Your task to perform on an android device: turn vacation reply on in the gmail app Image 0: 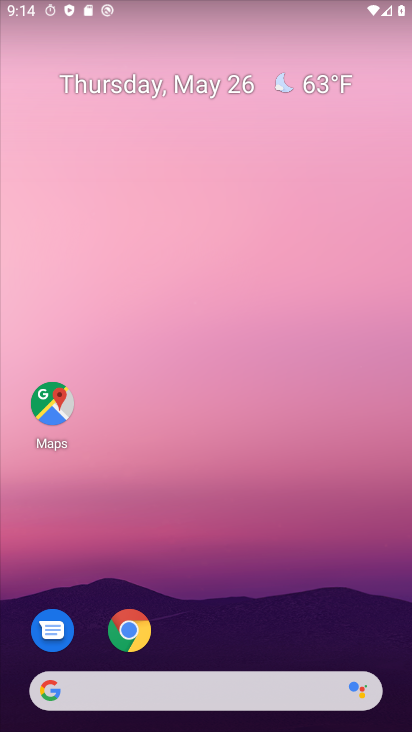
Step 0: drag from (257, 700) to (258, 61)
Your task to perform on an android device: turn vacation reply on in the gmail app Image 1: 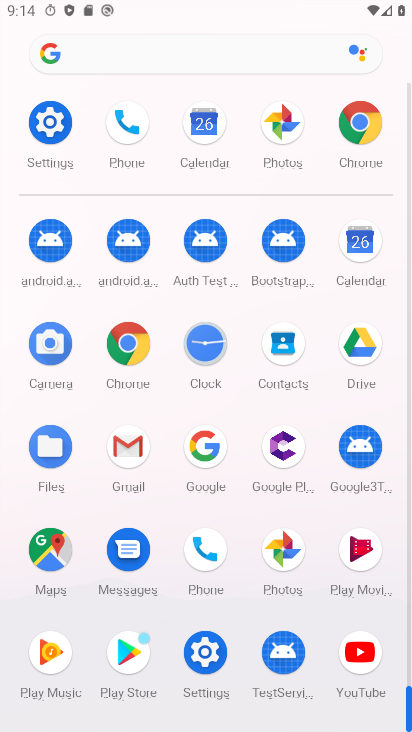
Step 1: click (128, 452)
Your task to perform on an android device: turn vacation reply on in the gmail app Image 2: 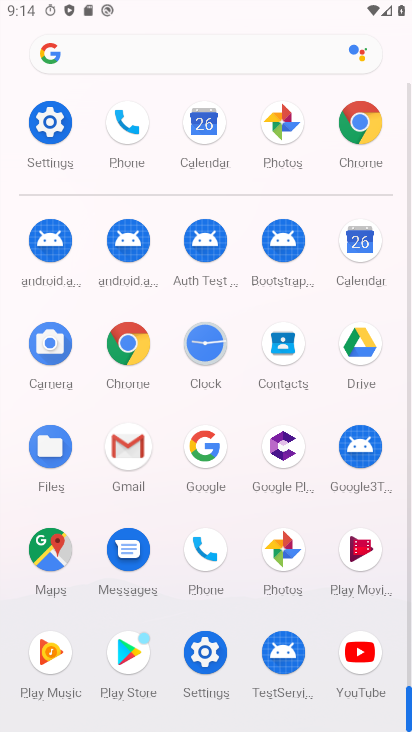
Step 2: click (153, 446)
Your task to perform on an android device: turn vacation reply on in the gmail app Image 3: 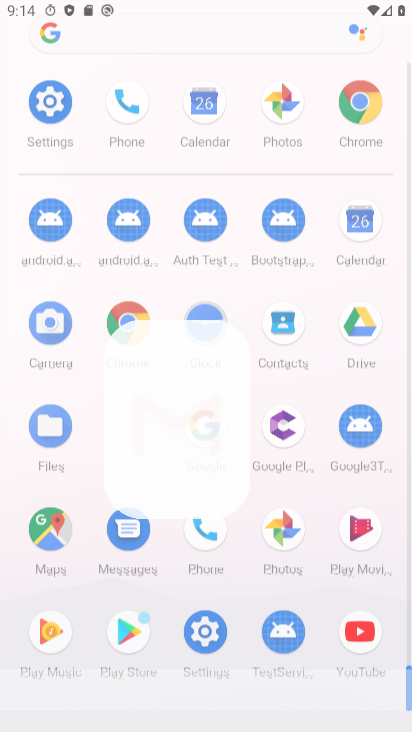
Step 3: click (153, 446)
Your task to perform on an android device: turn vacation reply on in the gmail app Image 4: 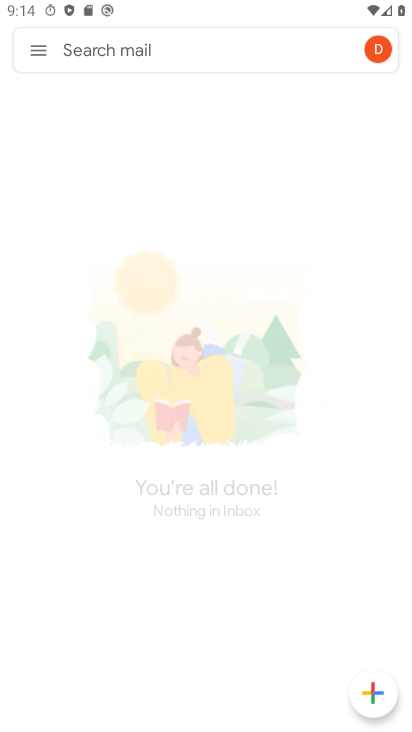
Step 4: drag from (138, 444) to (106, 421)
Your task to perform on an android device: turn vacation reply on in the gmail app Image 5: 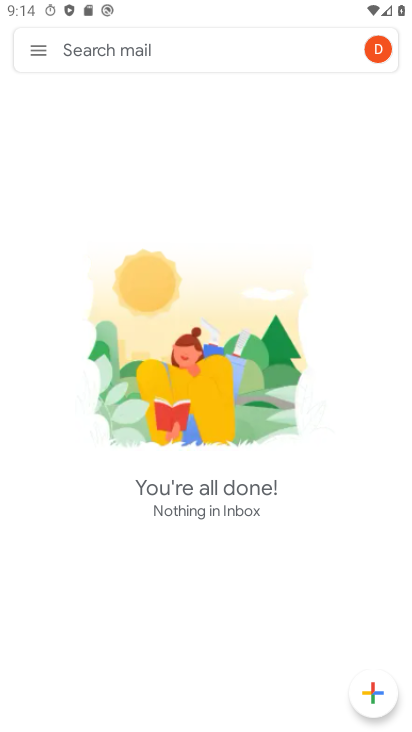
Step 5: click (44, 48)
Your task to perform on an android device: turn vacation reply on in the gmail app Image 6: 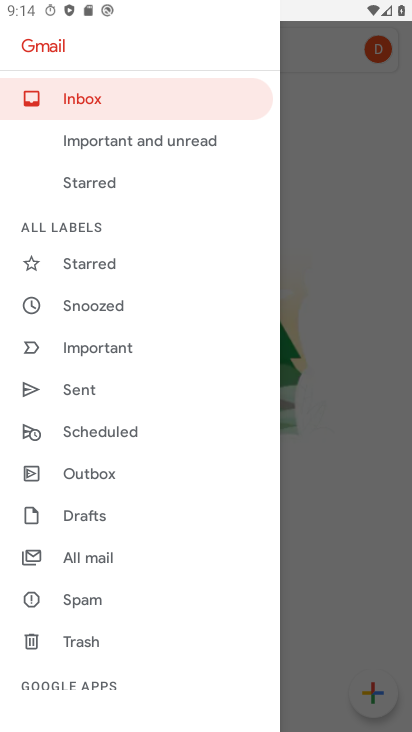
Step 6: drag from (113, 500) to (144, 119)
Your task to perform on an android device: turn vacation reply on in the gmail app Image 7: 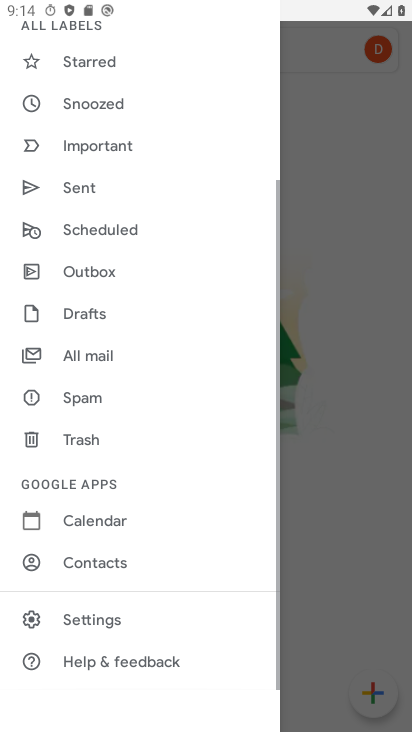
Step 7: drag from (74, 508) to (145, 167)
Your task to perform on an android device: turn vacation reply on in the gmail app Image 8: 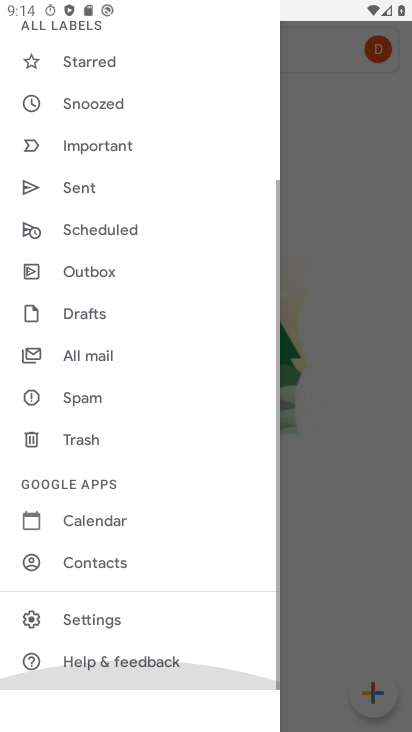
Step 8: drag from (137, 251) to (145, 146)
Your task to perform on an android device: turn vacation reply on in the gmail app Image 9: 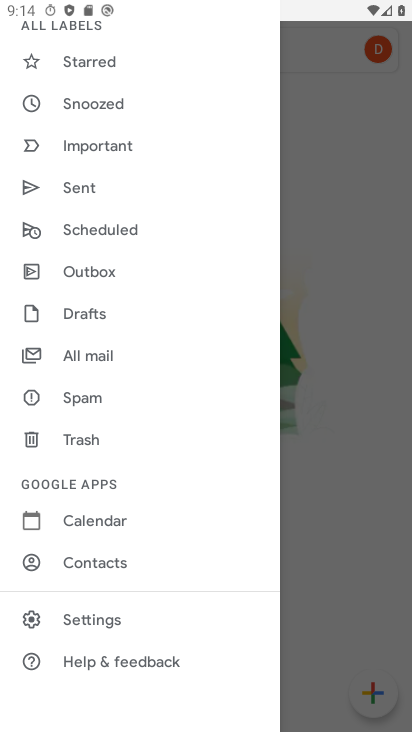
Step 9: click (76, 622)
Your task to perform on an android device: turn vacation reply on in the gmail app Image 10: 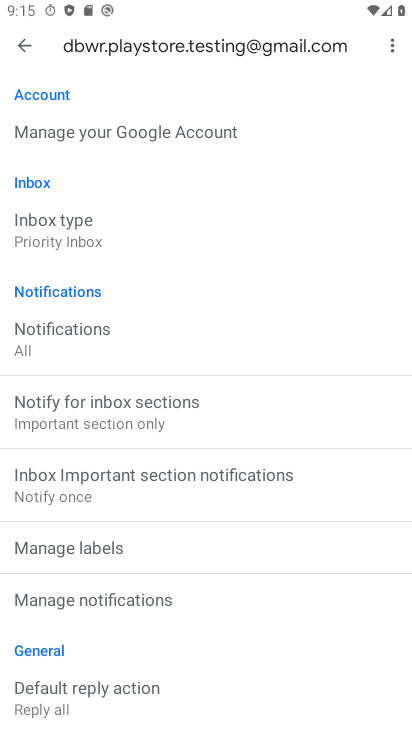
Step 10: drag from (133, 588) to (160, 30)
Your task to perform on an android device: turn vacation reply on in the gmail app Image 11: 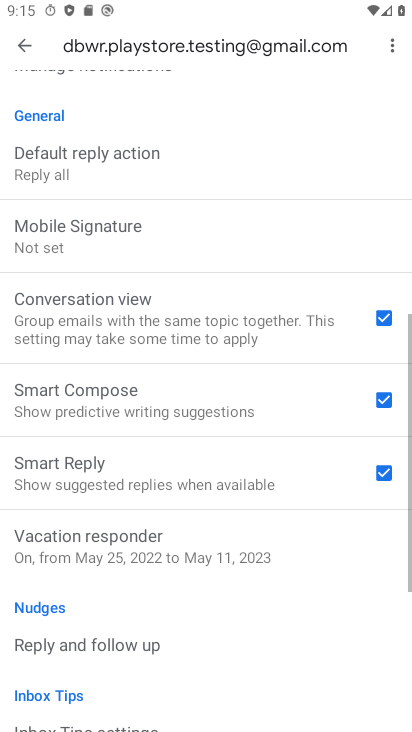
Step 11: drag from (146, 106) to (146, 69)
Your task to perform on an android device: turn vacation reply on in the gmail app Image 12: 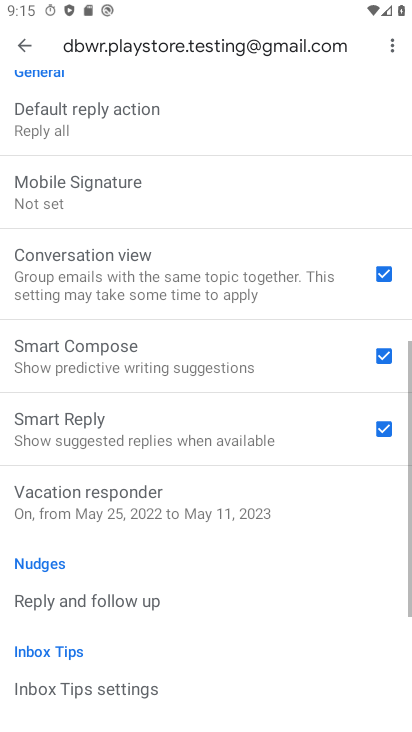
Step 12: drag from (101, 406) to (66, 106)
Your task to perform on an android device: turn vacation reply on in the gmail app Image 13: 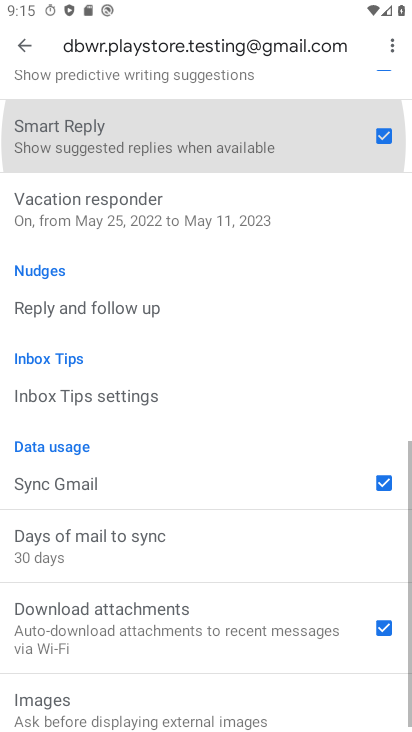
Step 13: drag from (89, 302) to (116, 11)
Your task to perform on an android device: turn vacation reply on in the gmail app Image 14: 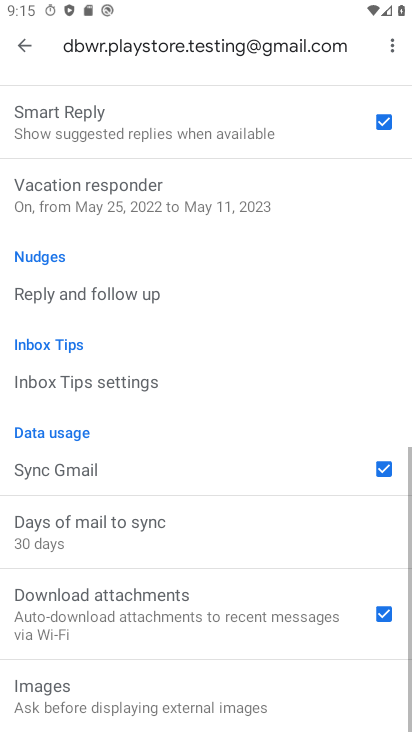
Step 14: drag from (125, 651) to (149, 57)
Your task to perform on an android device: turn vacation reply on in the gmail app Image 15: 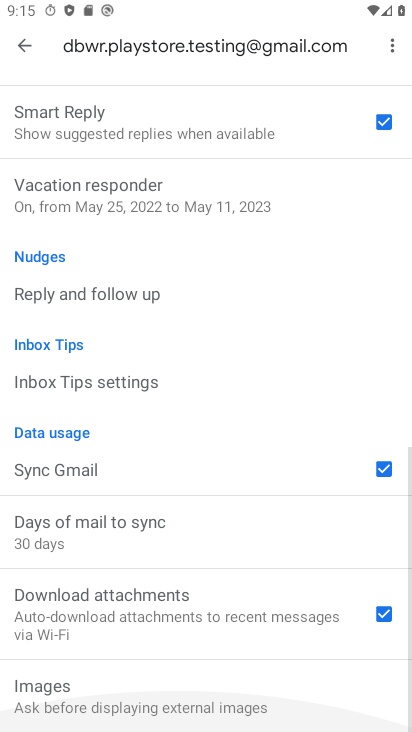
Step 15: drag from (207, 431) to (206, 88)
Your task to perform on an android device: turn vacation reply on in the gmail app Image 16: 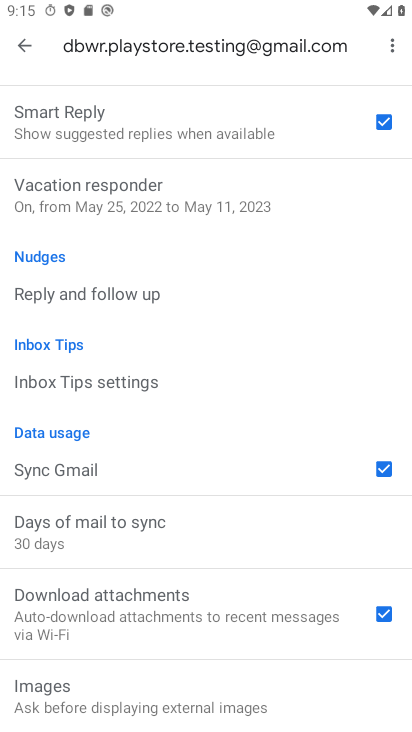
Step 16: click (147, 199)
Your task to perform on an android device: turn vacation reply on in the gmail app Image 17: 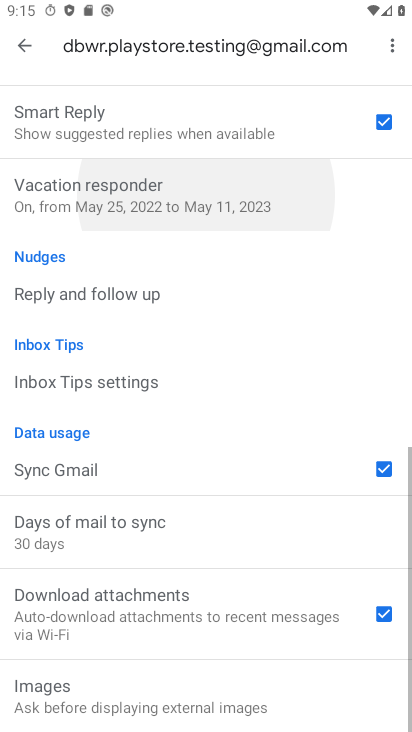
Step 17: click (152, 201)
Your task to perform on an android device: turn vacation reply on in the gmail app Image 18: 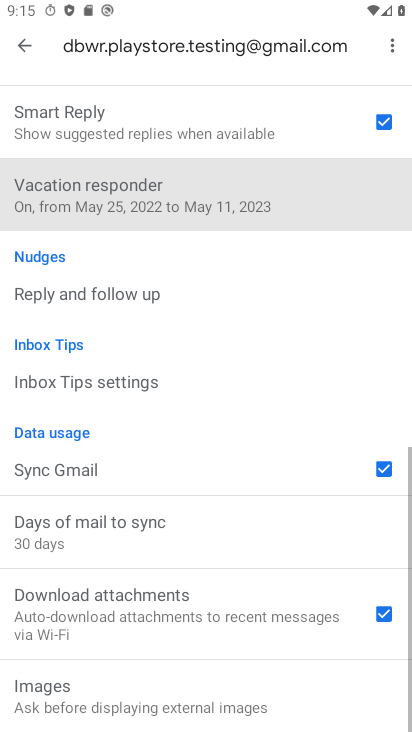
Step 18: click (152, 201)
Your task to perform on an android device: turn vacation reply on in the gmail app Image 19: 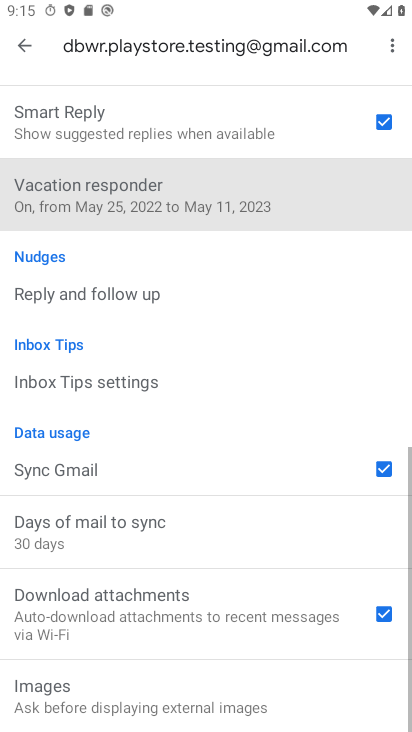
Step 19: click (153, 203)
Your task to perform on an android device: turn vacation reply on in the gmail app Image 20: 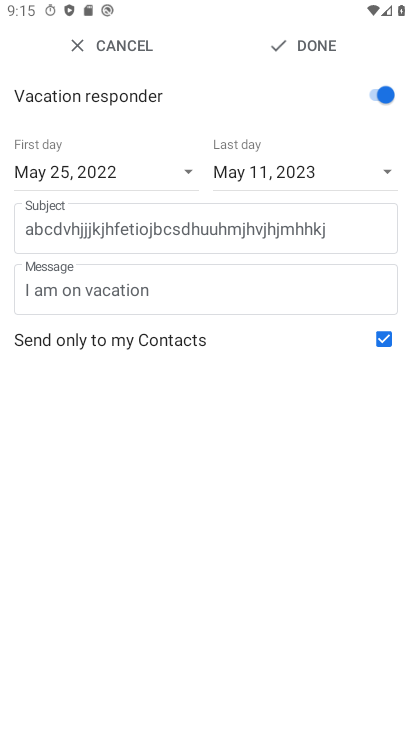
Step 20: task complete